Your task to perform on an android device: Go to network settings Image 0: 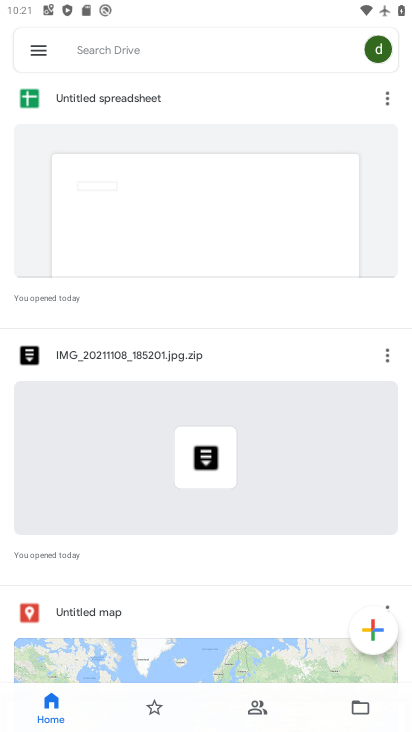
Step 0: press home button
Your task to perform on an android device: Go to network settings Image 1: 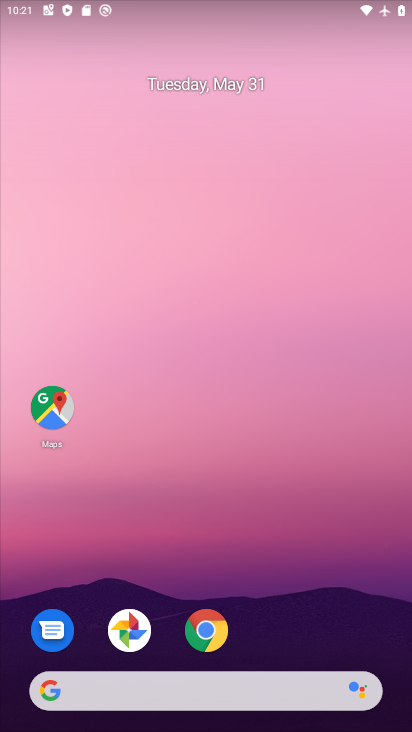
Step 1: drag from (272, 630) to (277, 138)
Your task to perform on an android device: Go to network settings Image 2: 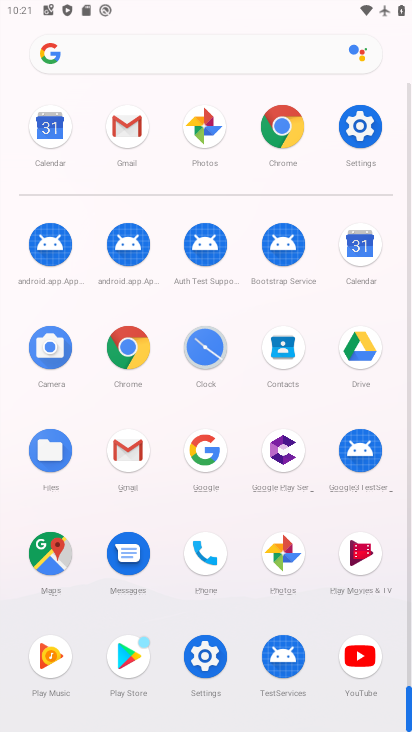
Step 2: click (360, 120)
Your task to perform on an android device: Go to network settings Image 3: 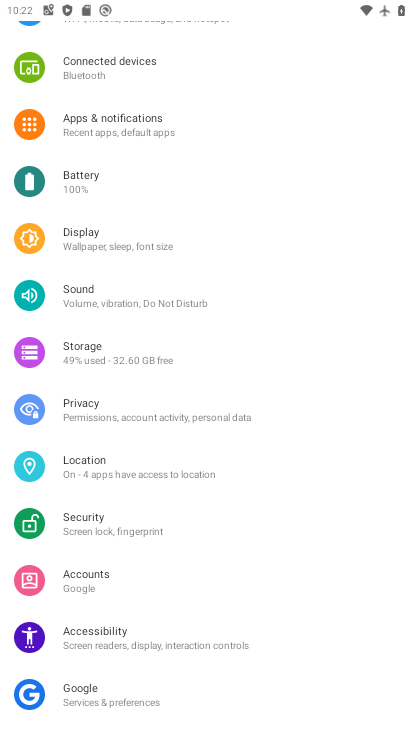
Step 3: drag from (134, 95) to (123, 596)
Your task to perform on an android device: Go to network settings Image 4: 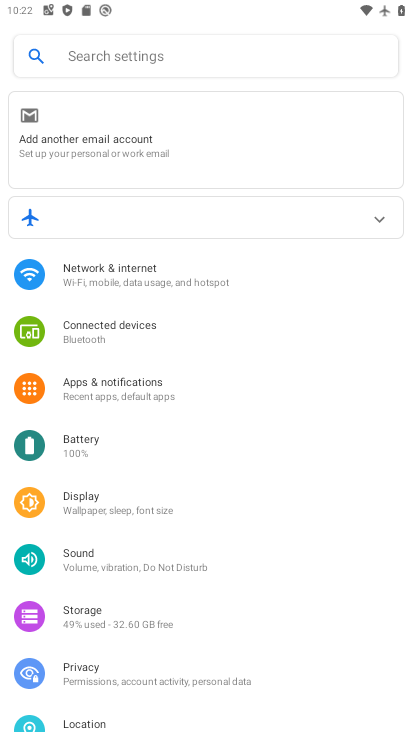
Step 4: click (147, 279)
Your task to perform on an android device: Go to network settings Image 5: 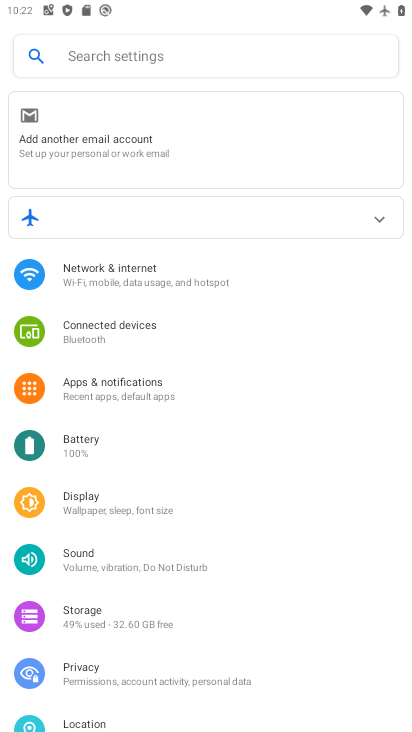
Step 5: click (147, 279)
Your task to perform on an android device: Go to network settings Image 6: 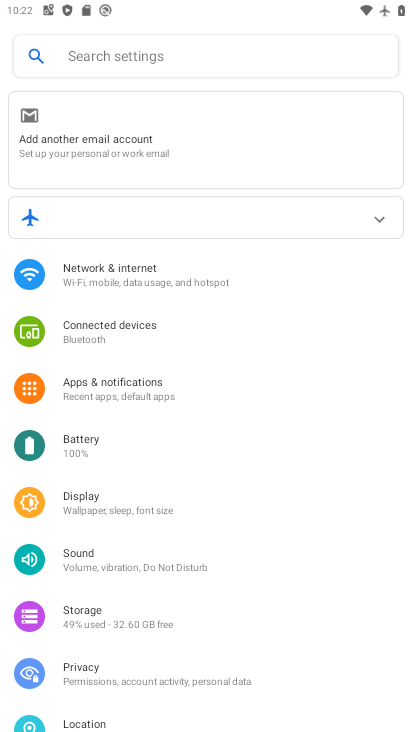
Step 6: click (124, 275)
Your task to perform on an android device: Go to network settings Image 7: 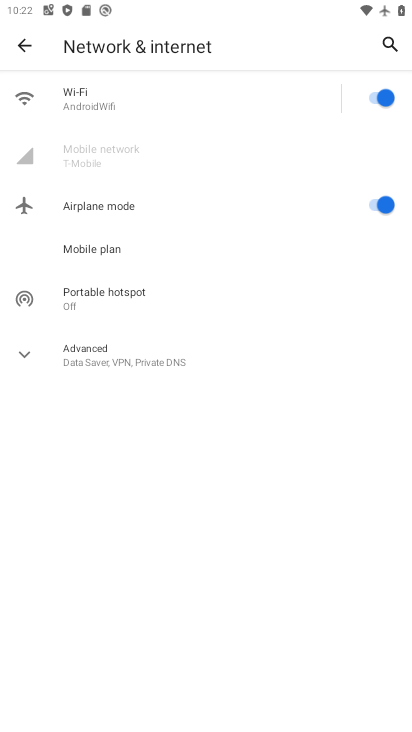
Step 7: task complete